Your task to perform on an android device: Open Google Chrome Image 0: 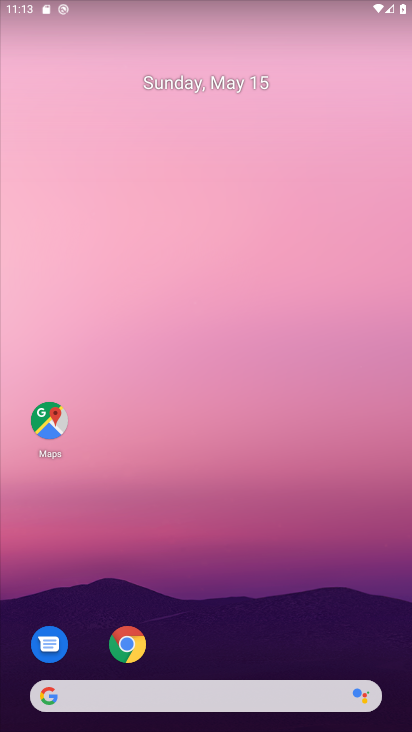
Step 0: drag from (214, 630) to (283, 464)
Your task to perform on an android device: Open Google Chrome Image 1: 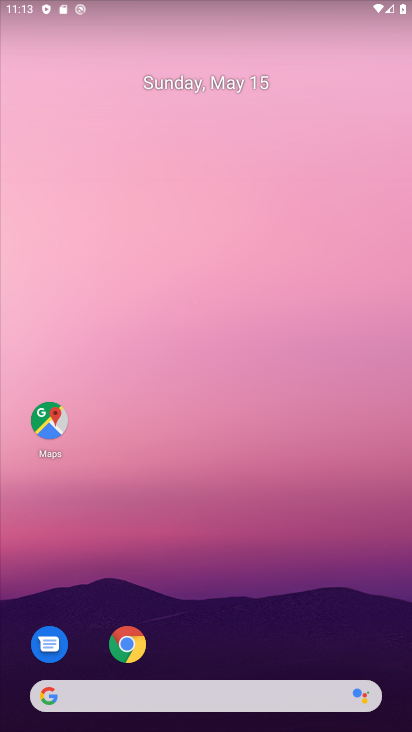
Step 1: drag from (167, 655) to (209, 166)
Your task to perform on an android device: Open Google Chrome Image 2: 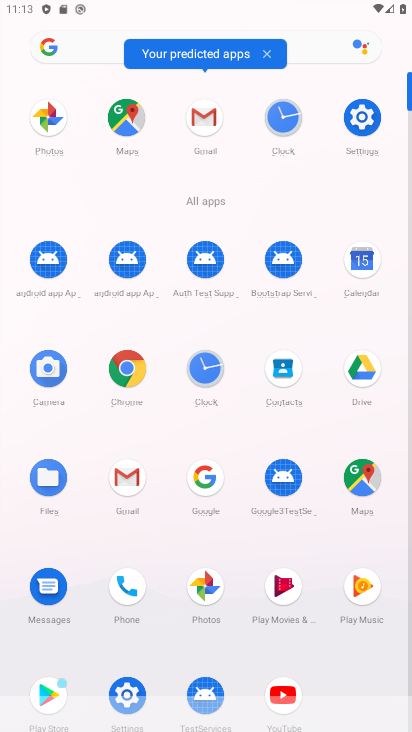
Step 2: click (126, 372)
Your task to perform on an android device: Open Google Chrome Image 3: 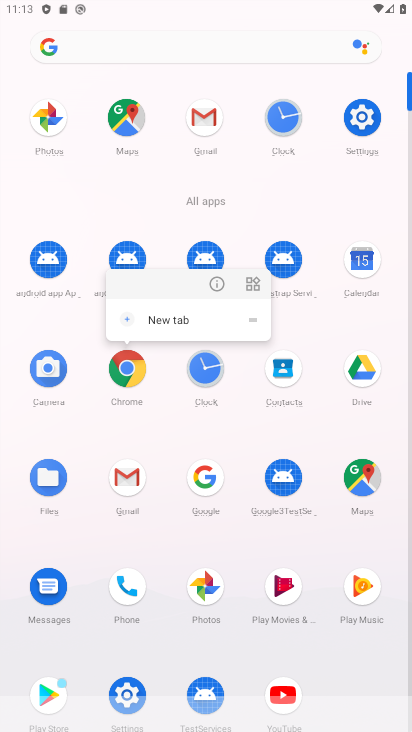
Step 3: click (214, 273)
Your task to perform on an android device: Open Google Chrome Image 4: 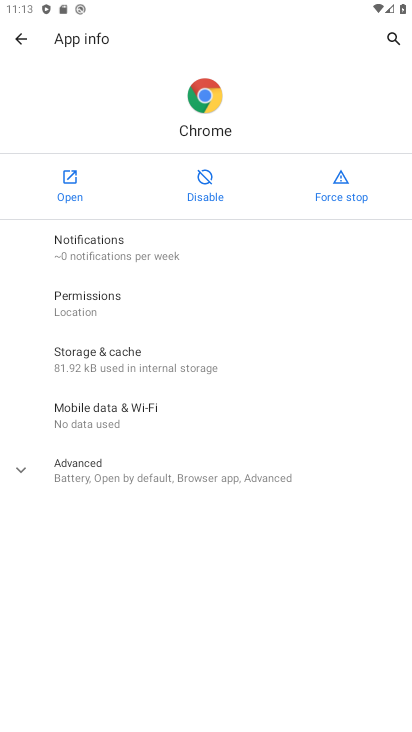
Step 4: click (75, 167)
Your task to perform on an android device: Open Google Chrome Image 5: 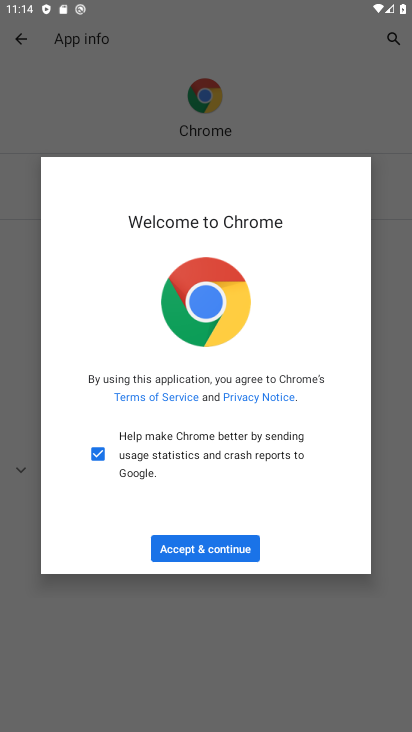
Step 5: click (196, 552)
Your task to perform on an android device: Open Google Chrome Image 6: 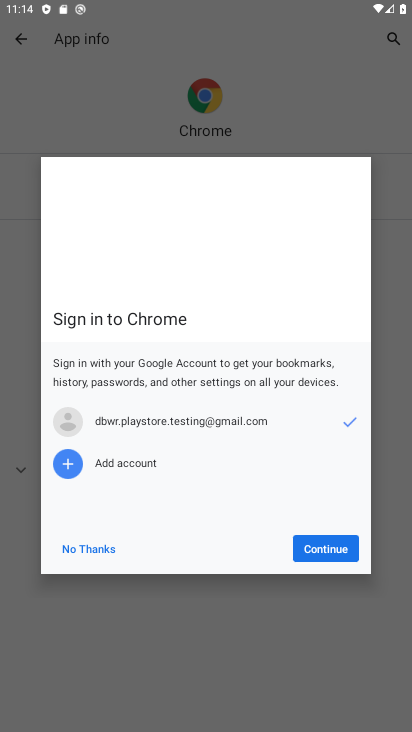
Step 6: click (321, 555)
Your task to perform on an android device: Open Google Chrome Image 7: 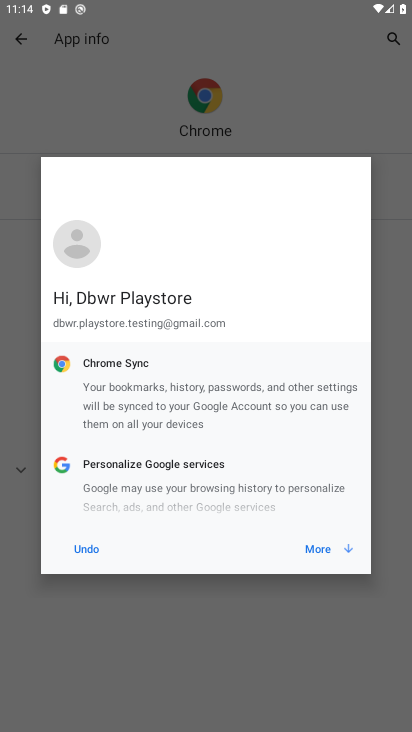
Step 7: task complete